Your task to perform on an android device: turn off translation in the chrome app Image 0: 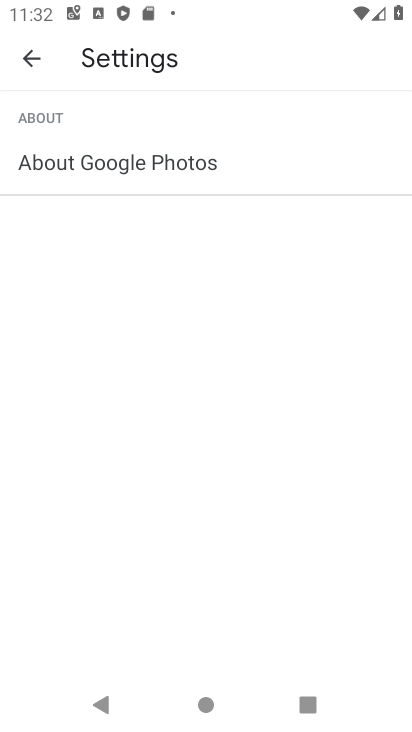
Step 0: press home button
Your task to perform on an android device: turn off translation in the chrome app Image 1: 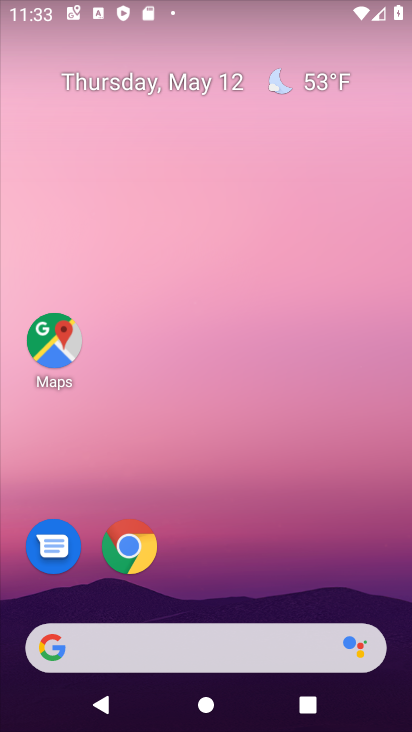
Step 1: drag from (231, 656) to (212, 287)
Your task to perform on an android device: turn off translation in the chrome app Image 2: 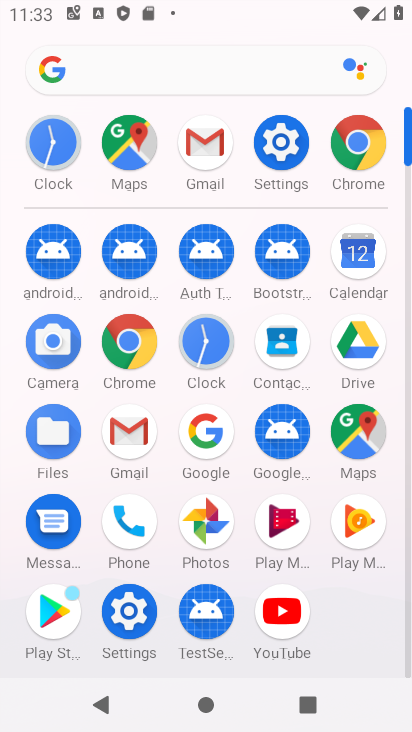
Step 2: click (145, 334)
Your task to perform on an android device: turn off translation in the chrome app Image 3: 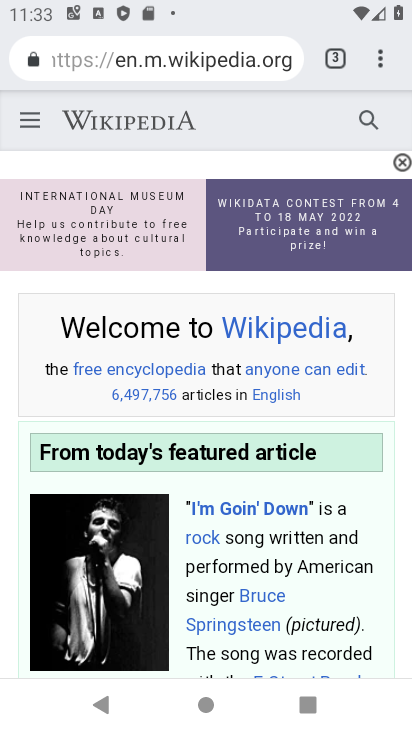
Step 3: click (381, 68)
Your task to perform on an android device: turn off translation in the chrome app Image 4: 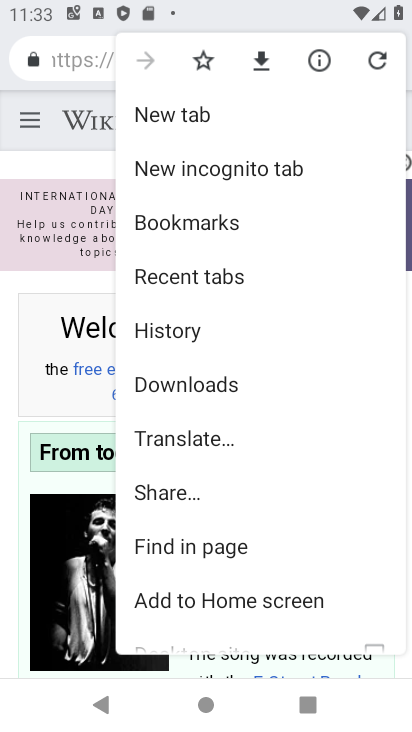
Step 4: drag from (214, 568) to (246, 400)
Your task to perform on an android device: turn off translation in the chrome app Image 5: 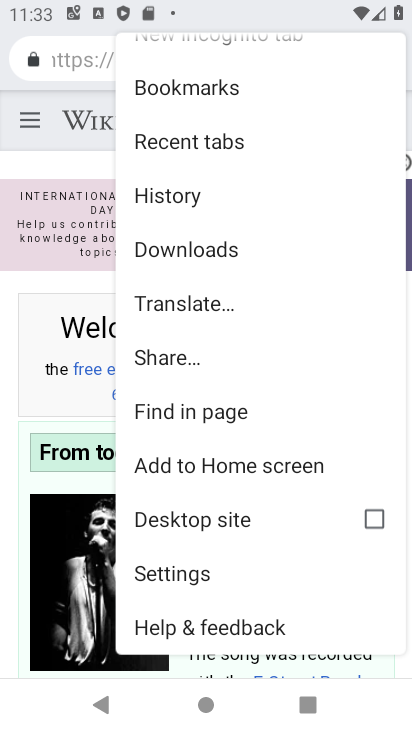
Step 5: click (184, 578)
Your task to perform on an android device: turn off translation in the chrome app Image 6: 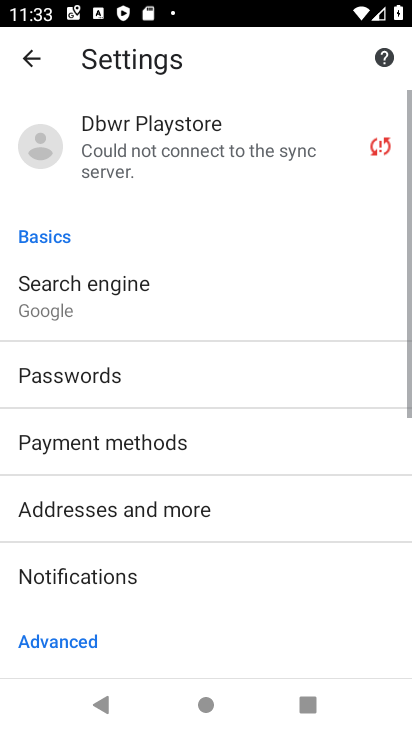
Step 6: drag from (226, 594) to (223, 360)
Your task to perform on an android device: turn off translation in the chrome app Image 7: 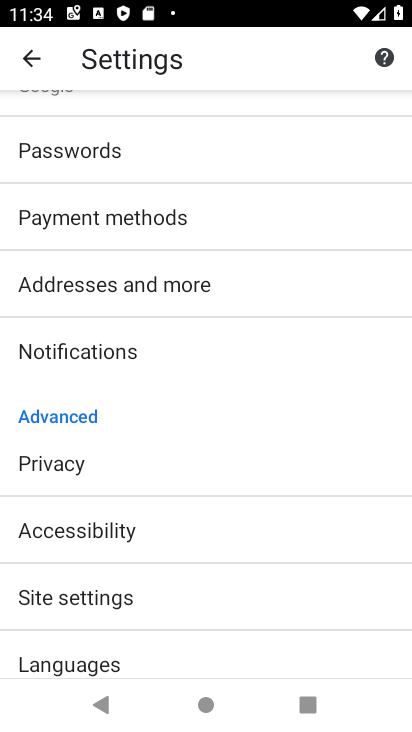
Step 7: click (78, 665)
Your task to perform on an android device: turn off translation in the chrome app Image 8: 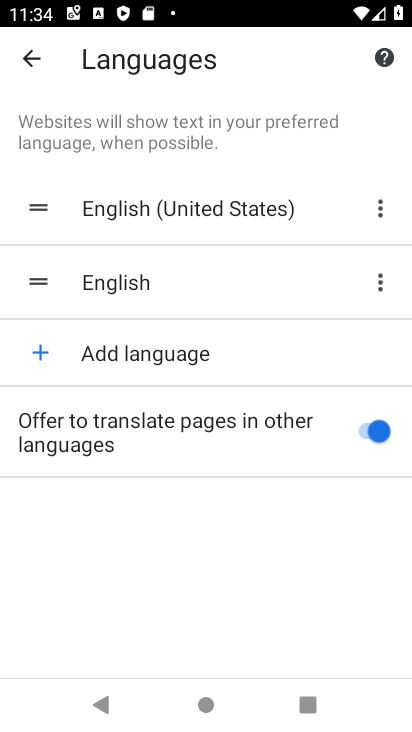
Step 8: click (181, 437)
Your task to perform on an android device: turn off translation in the chrome app Image 9: 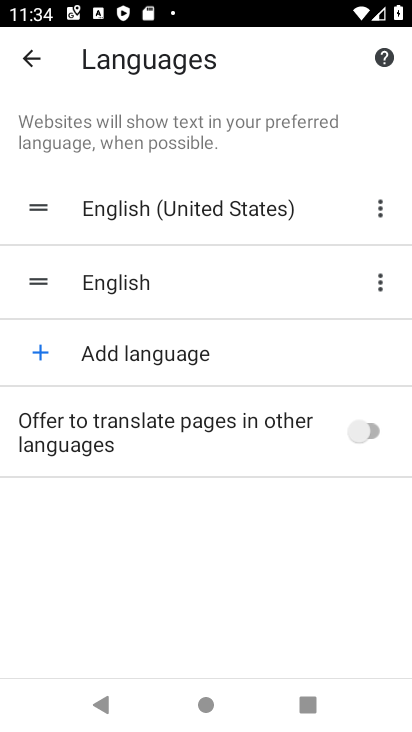
Step 9: task complete